Your task to perform on an android device: Go to Amazon Image 0: 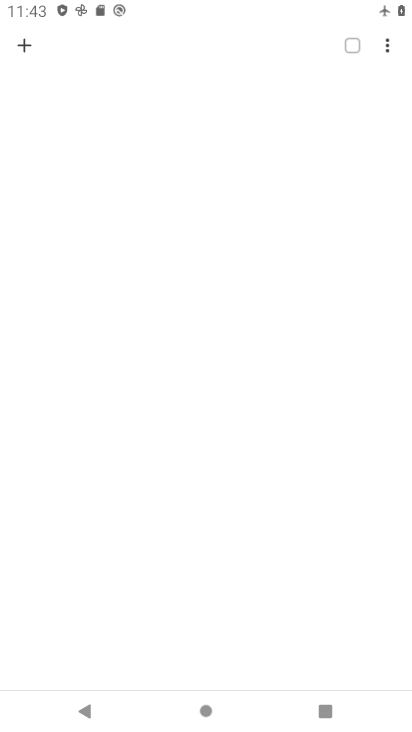
Step 0: press home button
Your task to perform on an android device: Go to Amazon Image 1: 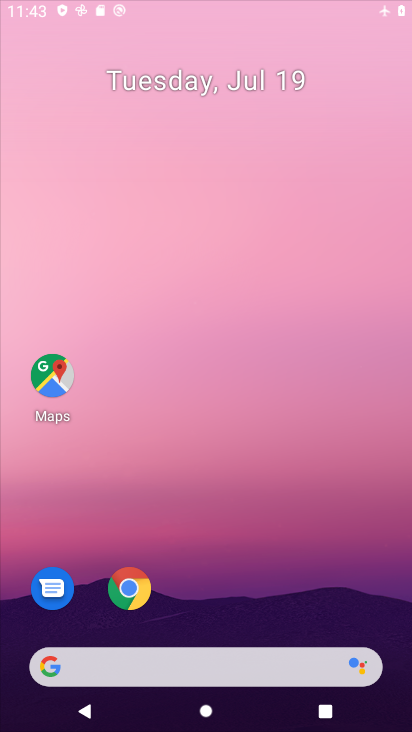
Step 1: drag from (396, 652) to (200, 46)
Your task to perform on an android device: Go to Amazon Image 2: 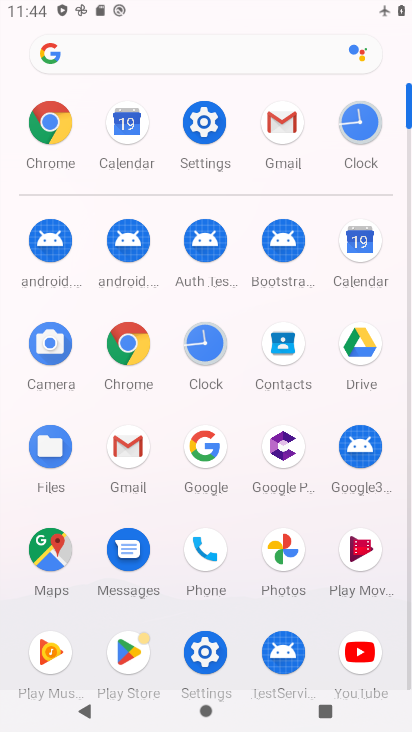
Step 2: click (197, 455)
Your task to perform on an android device: Go to Amazon Image 3: 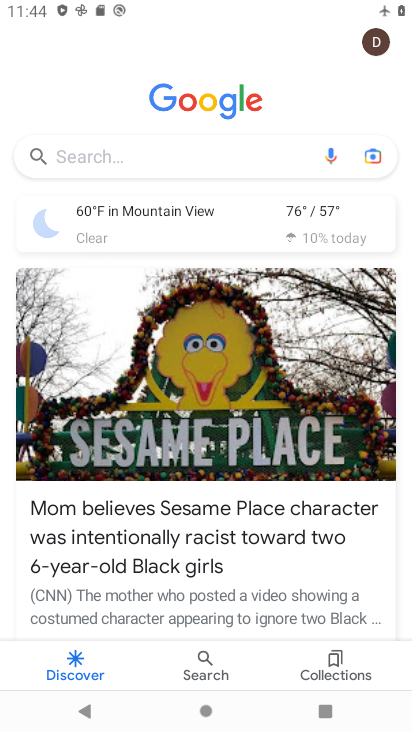
Step 3: click (112, 157)
Your task to perform on an android device: Go to Amazon Image 4: 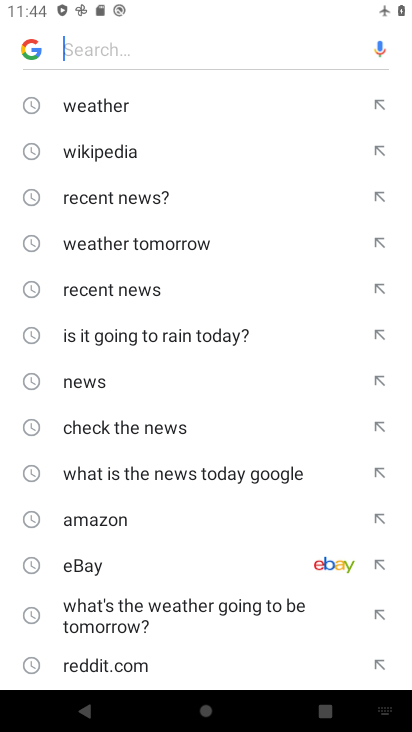
Step 4: click (102, 507)
Your task to perform on an android device: Go to Amazon Image 5: 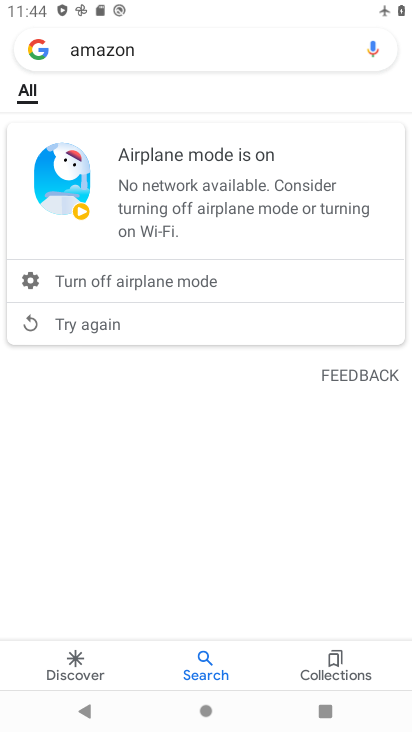
Step 5: task complete